Your task to perform on an android device: Go to Google maps Image 0: 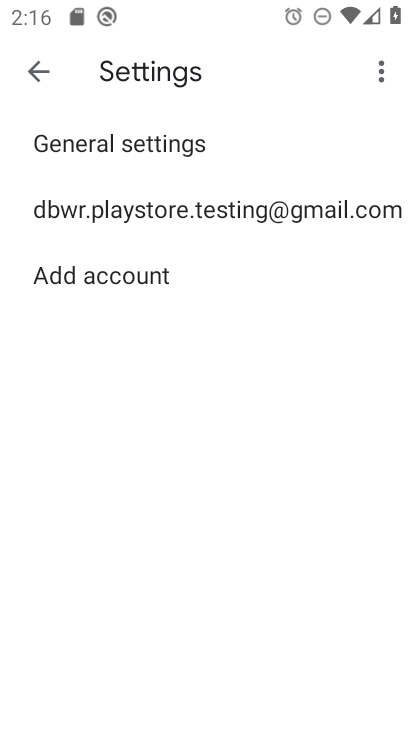
Step 0: press home button
Your task to perform on an android device: Go to Google maps Image 1: 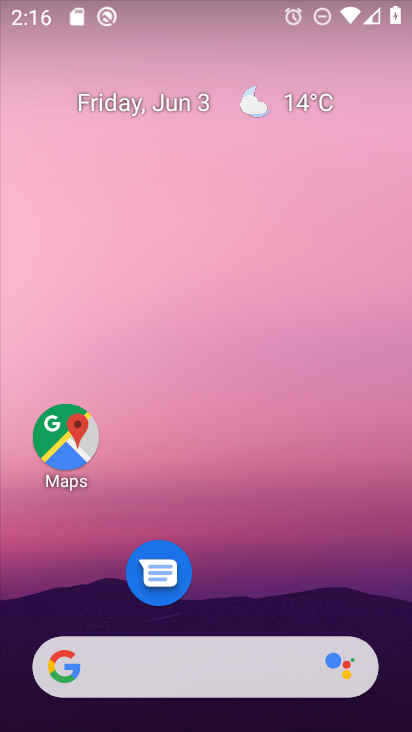
Step 1: drag from (247, 623) to (321, 108)
Your task to perform on an android device: Go to Google maps Image 2: 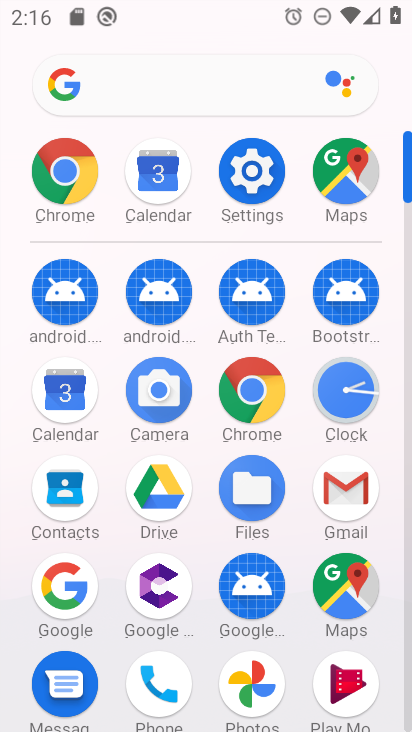
Step 2: click (253, 371)
Your task to perform on an android device: Go to Google maps Image 3: 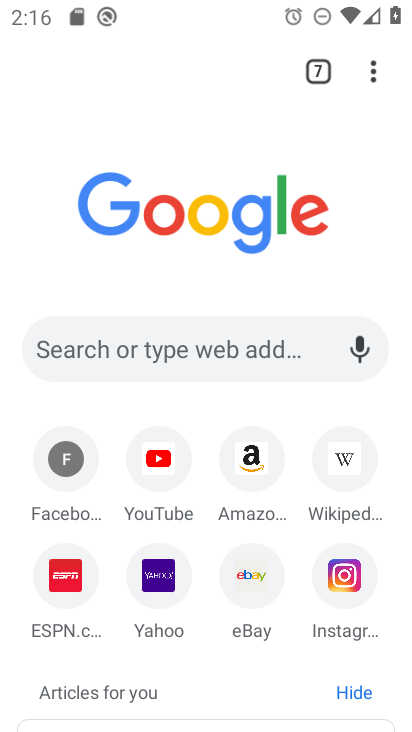
Step 3: press home button
Your task to perform on an android device: Go to Google maps Image 4: 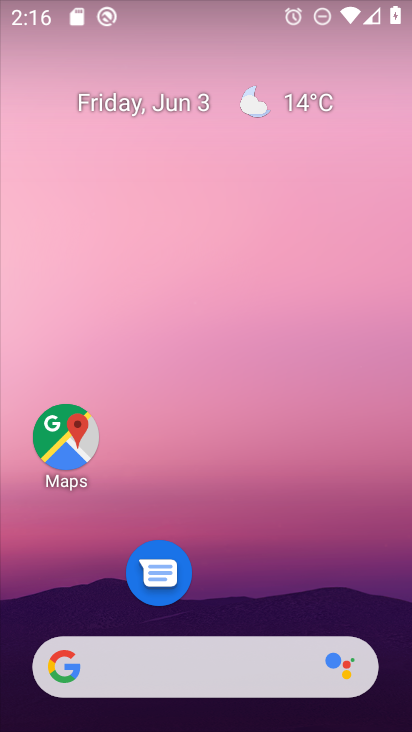
Step 4: drag from (261, 622) to (321, 43)
Your task to perform on an android device: Go to Google maps Image 5: 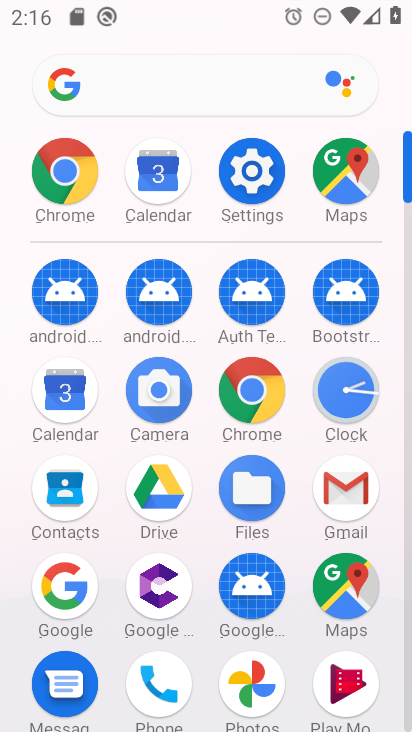
Step 5: click (346, 590)
Your task to perform on an android device: Go to Google maps Image 6: 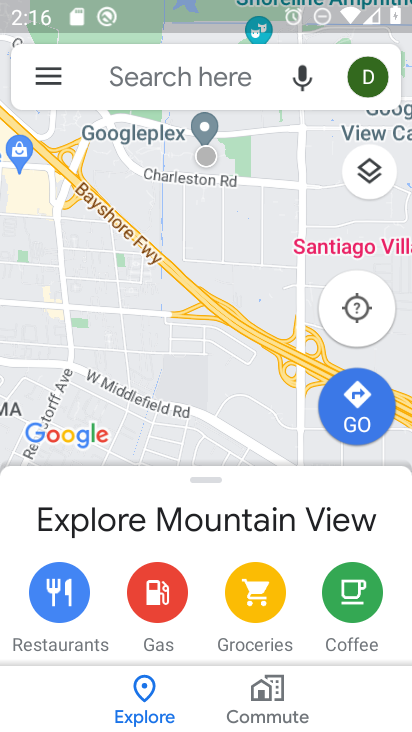
Step 6: task complete